Your task to perform on an android device: set the timer Image 0: 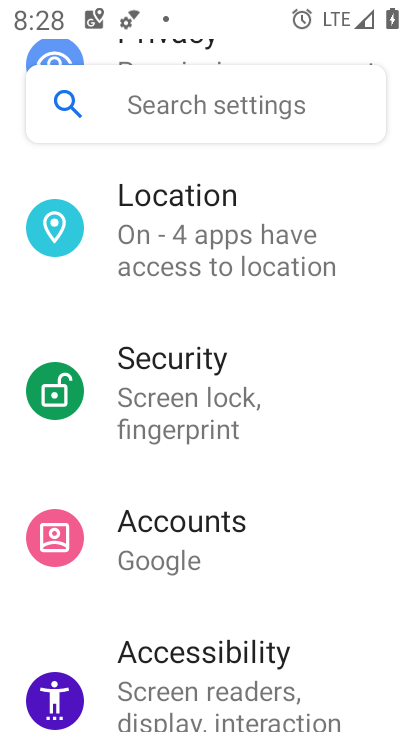
Step 0: press home button
Your task to perform on an android device: set the timer Image 1: 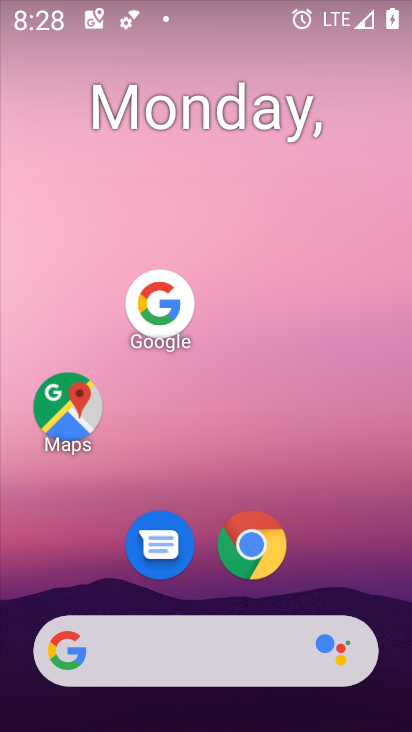
Step 1: drag from (185, 645) to (378, 23)
Your task to perform on an android device: set the timer Image 2: 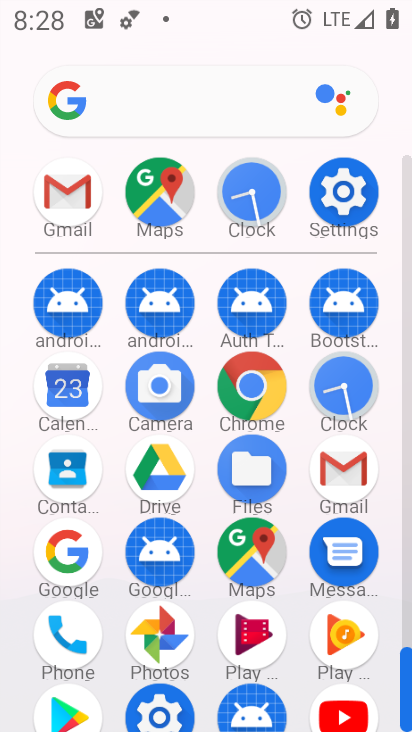
Step 2: click (252, 198)
Your task to perform on an android device: set the timer Image 3: 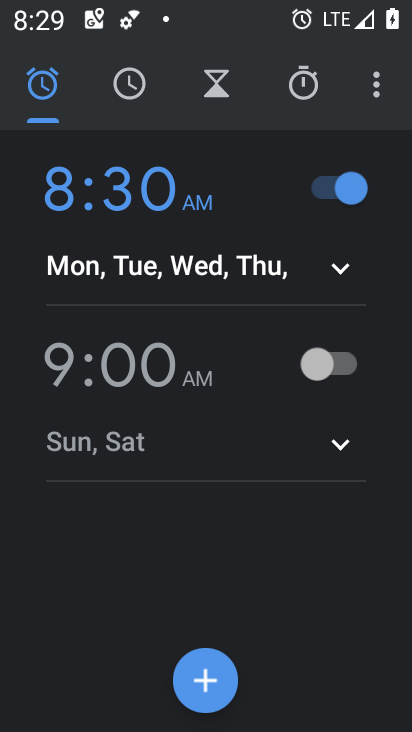
Step 3: click (219, 95)
Your task to perform on an android device: set the timer Image 4: 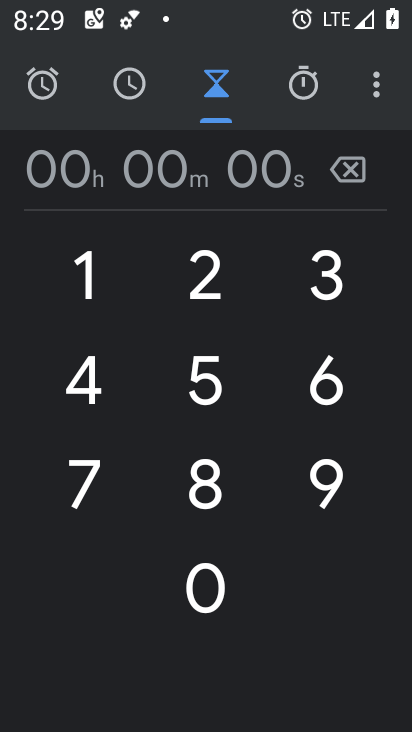
Step 4: click (77, 288)
Your task to perform on an android device: set the timer Image 5: 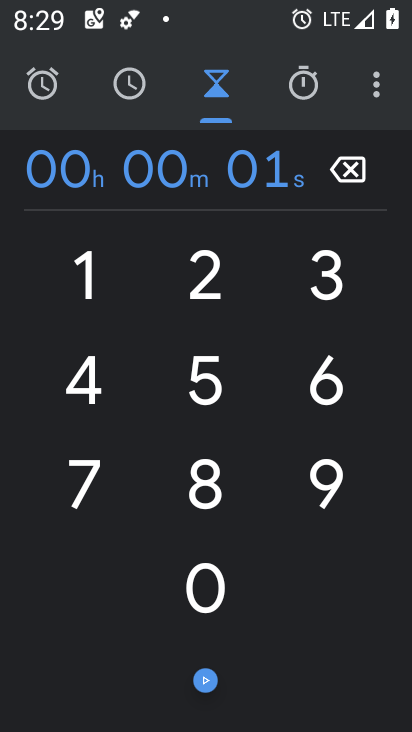
Step 5: click (199, 276)
Your task to perform on an android device: set the timer Image 6: 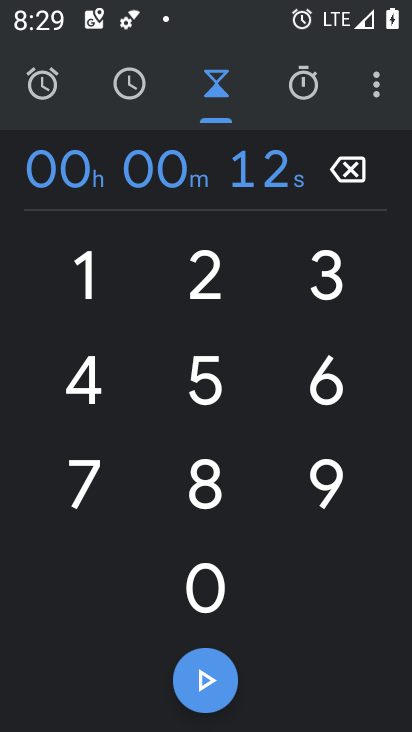
Step 6: click (199, 688)
Your task to perform on an android device: set the timer Image 7: 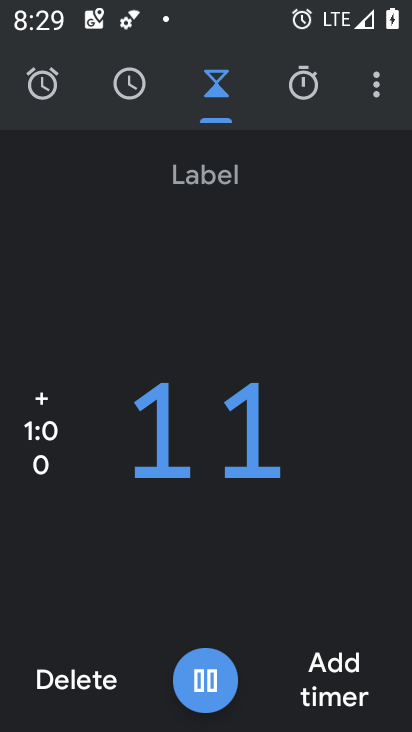
Step 7: click (199, 688)
Your task to perform on an android device: set the timer Image 8: 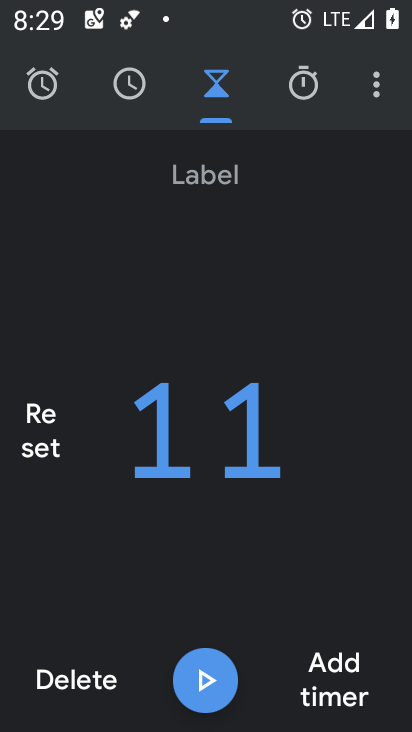
Step 8: task complete